Your task to perform on an android device: Open Youtube and go to the subscriptions tab Image 0: 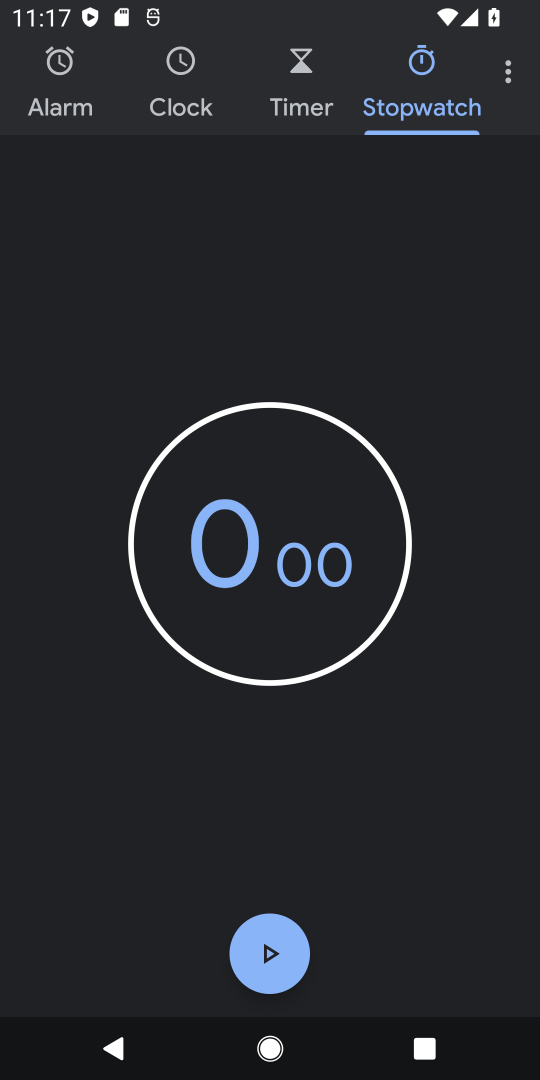
Step 0: press home button
Your task to perform on an android device: Open Youtube and go to the subscriptions tab Image 1: 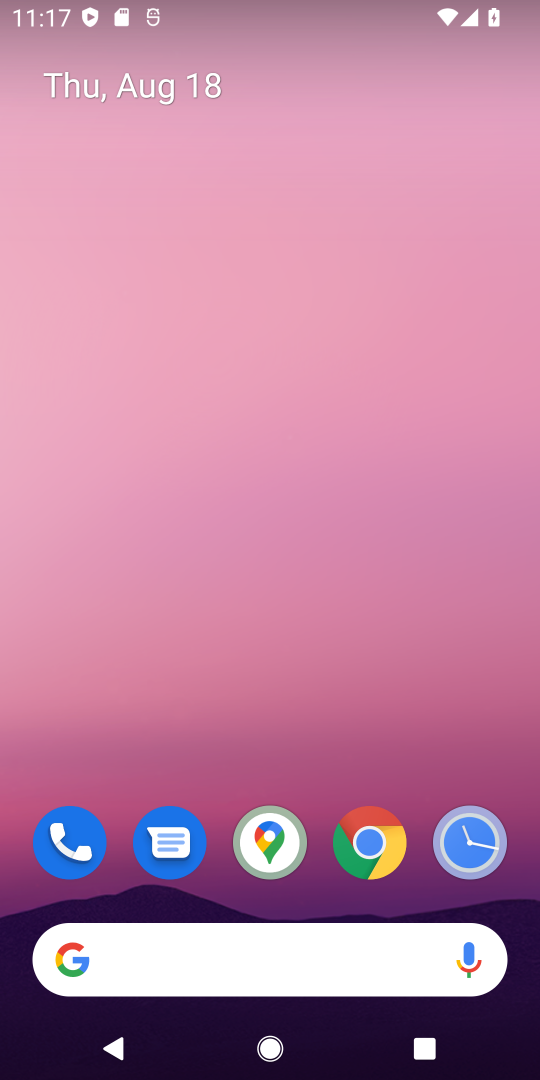
Step 1: drag from (312, 916) to (380, 79)
Your task to perform on an android device: Open Youtube and go to the subscriptions tab Image 2: 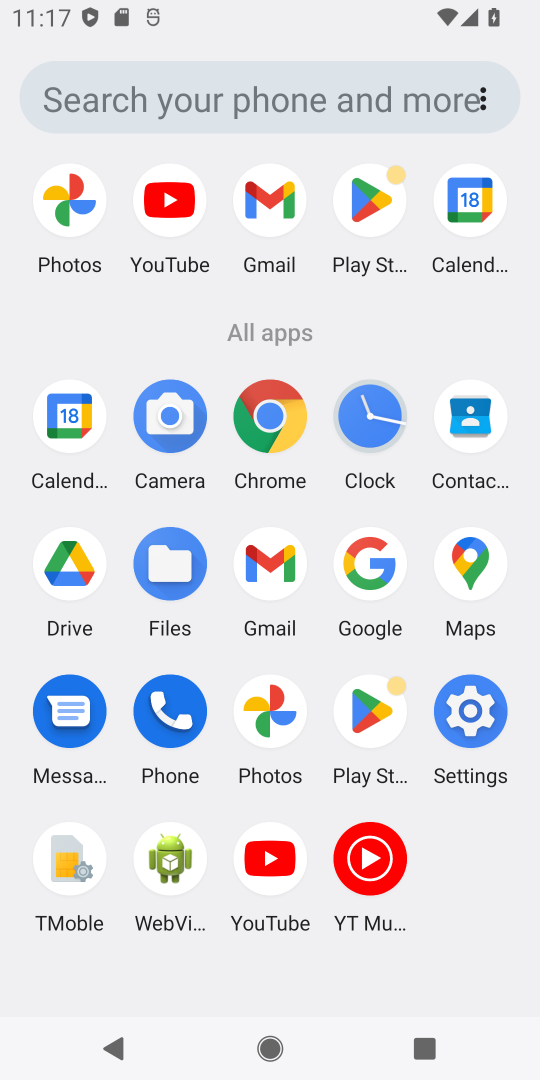
Step 2: click (287, 875)
Your task to perform on an android device: Open Youtube and go to the subscriptions tab Image 3: 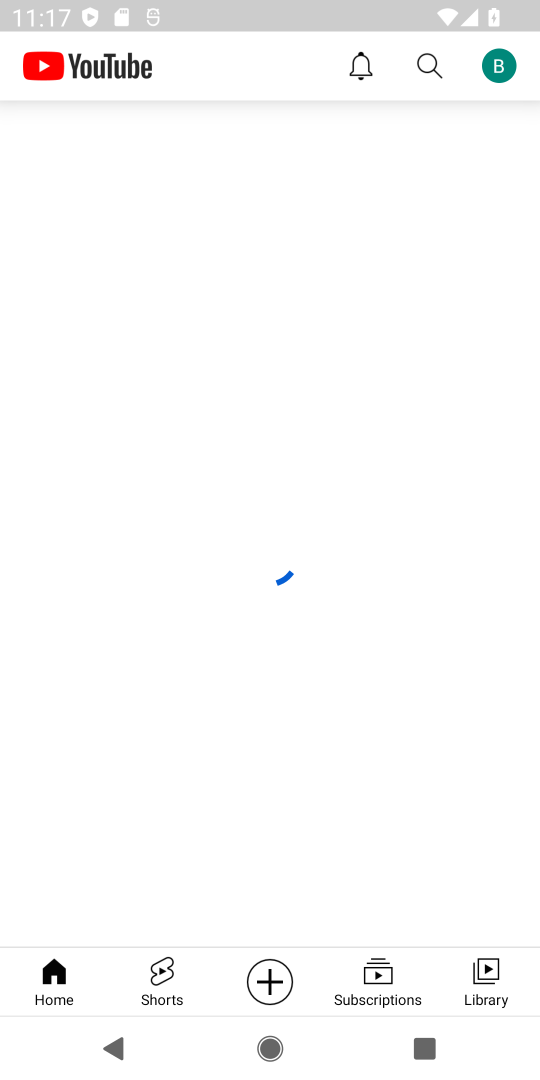
Step 3: click (349, 996)
Your task to perform on an android device: Open Youtube and go to the subscriptions tab Image 4: 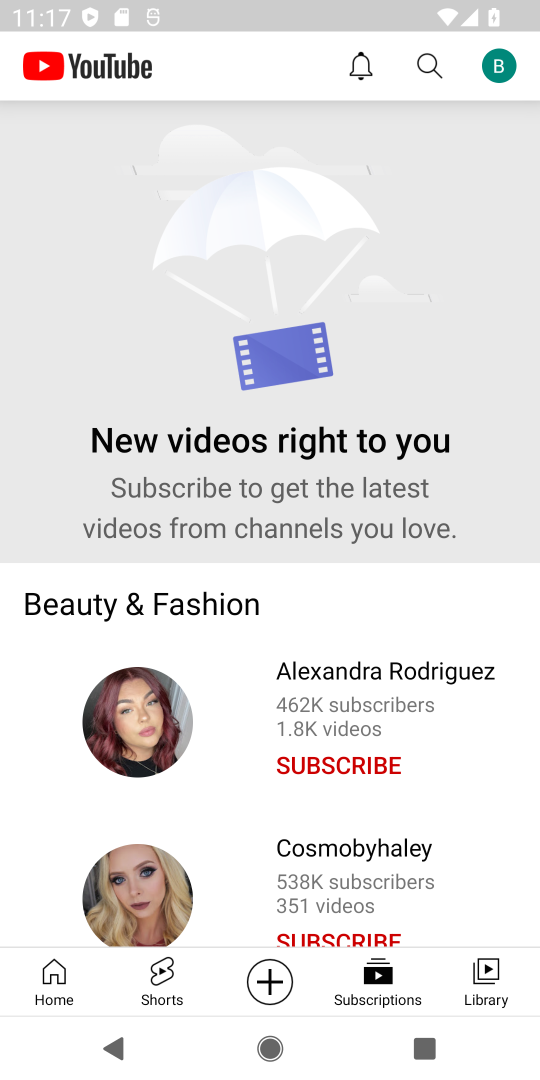
Step 4: task complete